Your task to perform on an android device: Do I have any events tomorrow? Image 0: 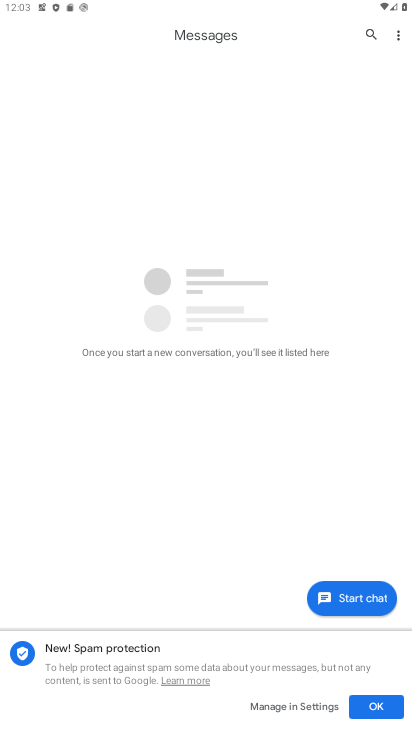
Step 0: drag from (262, 576) to (243, 247)
Your task to perform on an android device: Do I have any events tomorrow? Image 1: 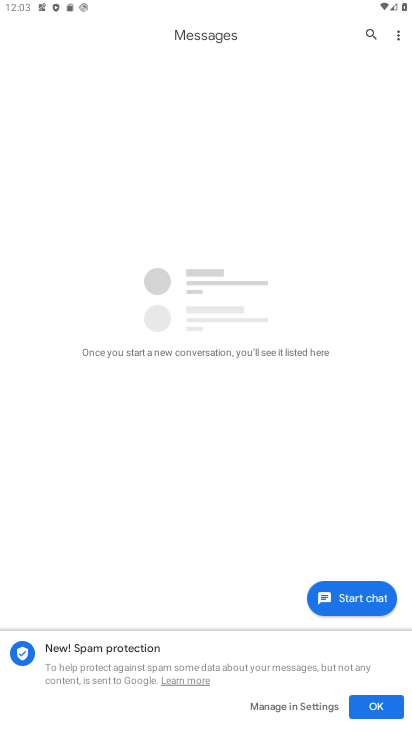
Step 1: drag from (194, 517) to (194, 319)
Your task to perform on an android device: Do I have any events tomorrow? Image 2: 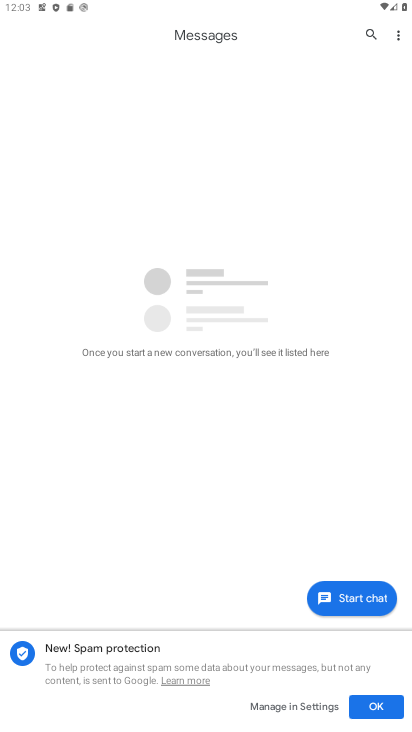
Step 2: press home button
Your task to perform on an android device: Do I have any events tomorrow? Image 3: 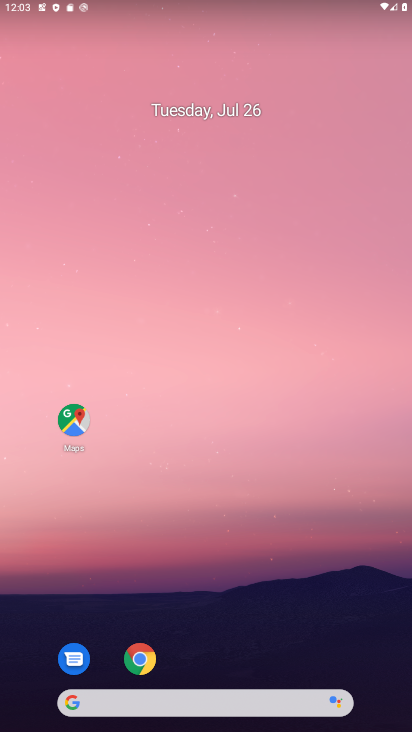
Step 3: drag from (215, 633) to (254, 231)
Your task to perform on an android device: Do I have any events tomorrow? Image 4: 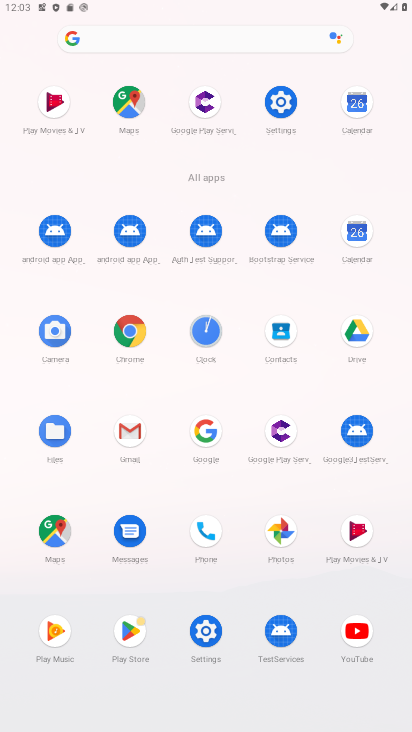
Step 4: click (367, 223)
Your task to perform on an android device: Do I have any events tomorrow? Image 5: 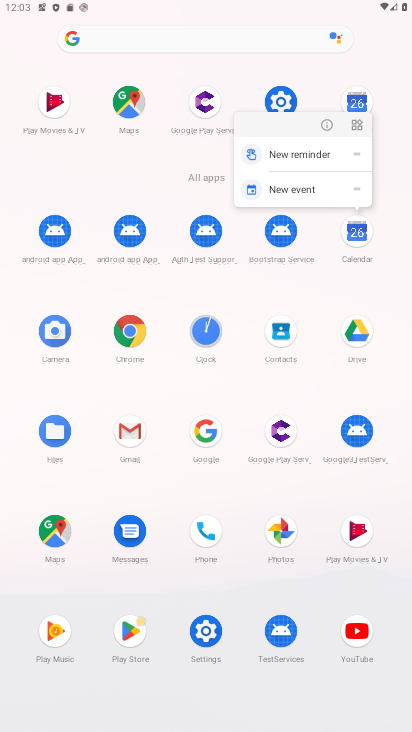
Step 5: click (328, 122)
Your task to perform on an android device: Do I have any events tomorrow? Image 6: 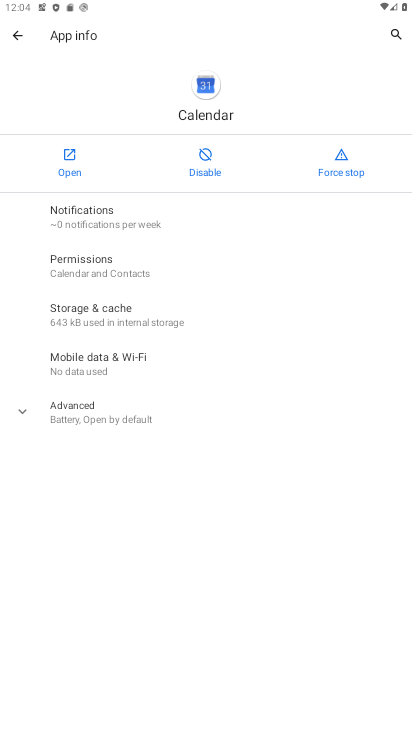
Step 6: click (70, 163)
Your task to perform on an android device: Do I have any events tomorrow? Image 7: 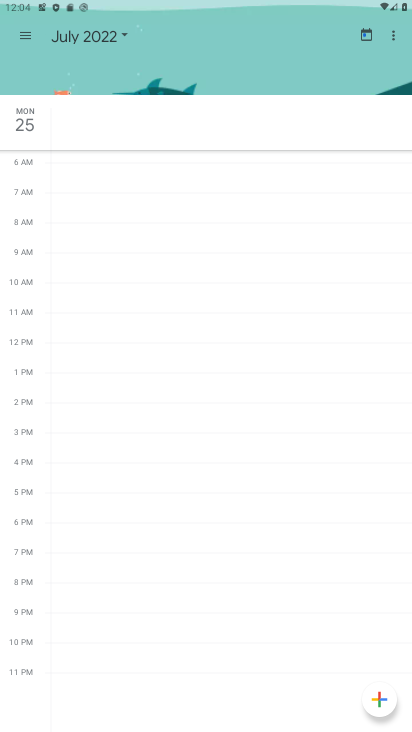
Step 7: click (103, 34)
Your task to perform on an android device: Do I have any events tomorrow? Image 8: 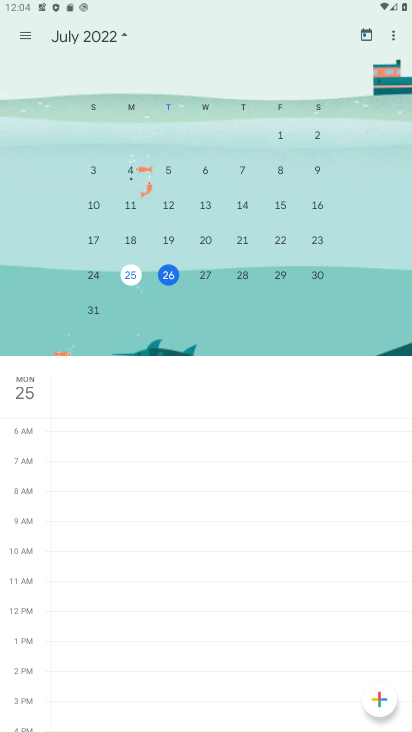
Step 8: click (167, 279)
Your task to perform on an android device: Do I have any events tomorrow? Image 9: 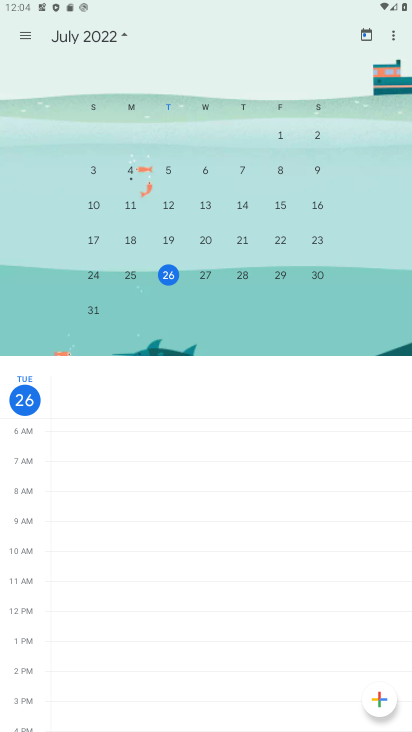
Step 9: task complete